Your task to perform on an android device: Open Yahoo.com Image 0: 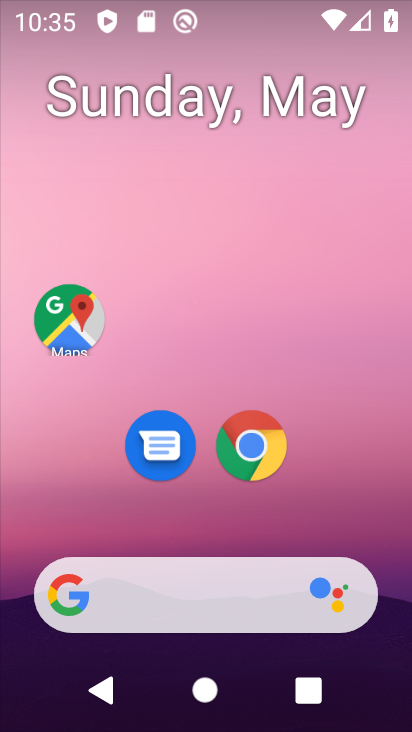
Step 0: click (277, 430)
Your task to perform on an android device: Open Yahoo.com Image 1: 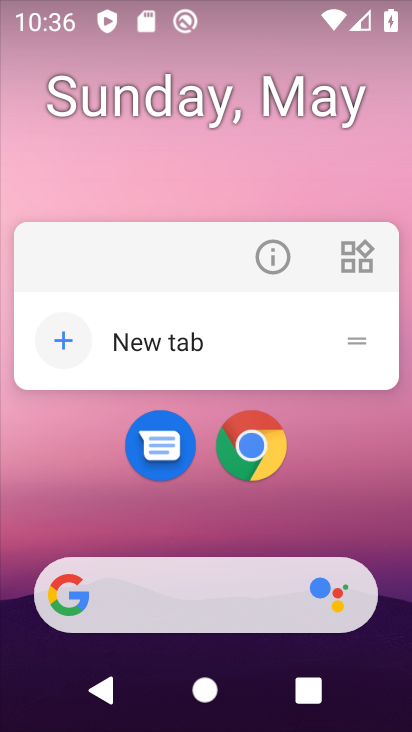
Step 1: click (229, 450)
Your task to perform on an android device: Open Yahoo.com Image 2: 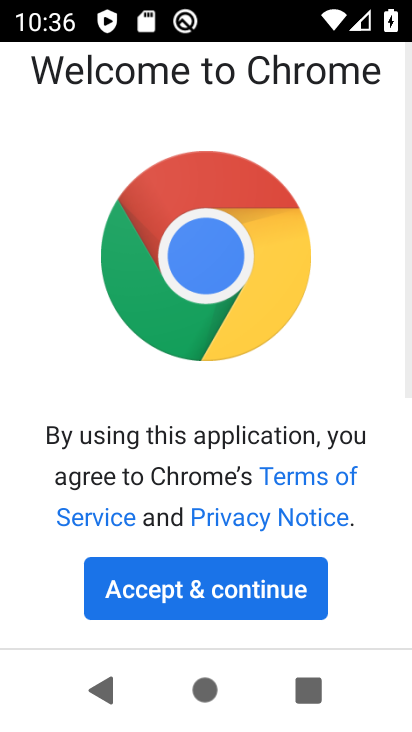
Step 2: click (209, 608)
Your task to perform on an android device: Open Yahoo.com Image 3: 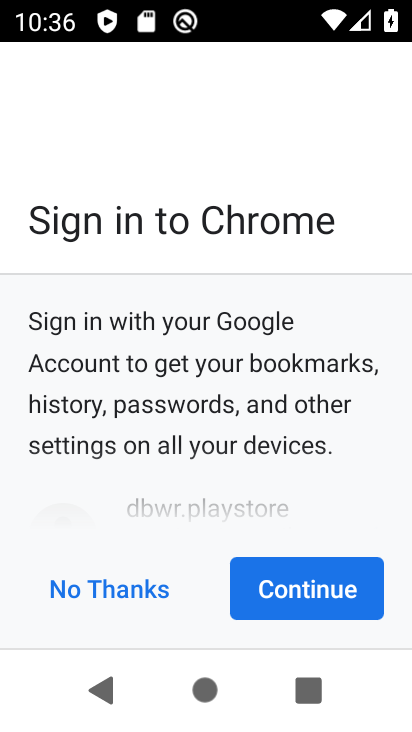
Step 3: click (304, 596)
Your task to perform on an android device: Open Yahoo.com Image 4: 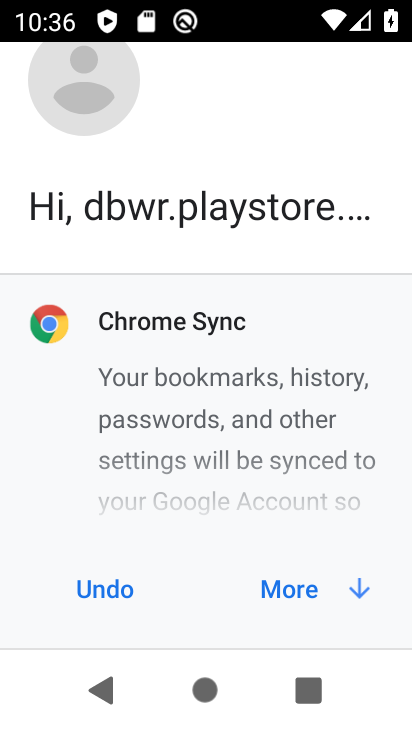
Step 4: click (309, 604)
Your task to perform on an android device: Open Yahoo.com Image 5: 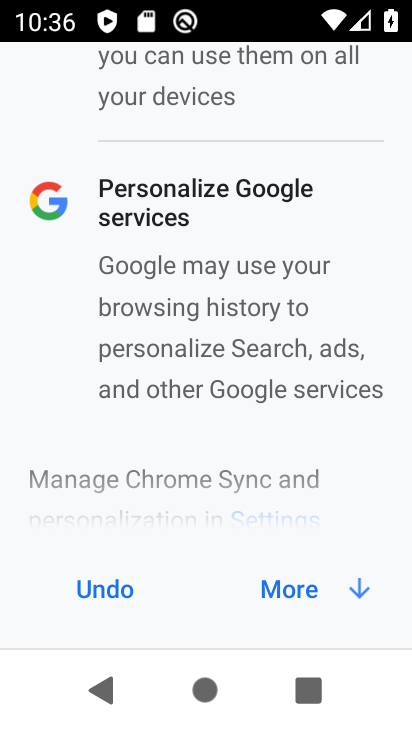
Step 5: click (317, 596)
Your task to perform on an android device: Open Yahoo.com Image 6: 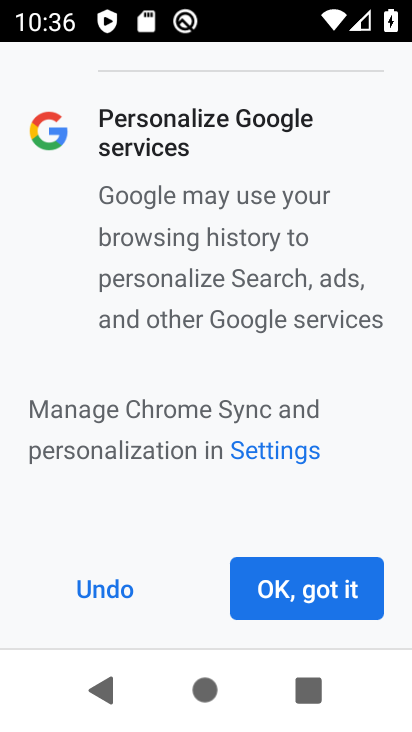
Step 6: click (288, 592)
Your task to perform on an android device: Open Yahoo.com Image 7: 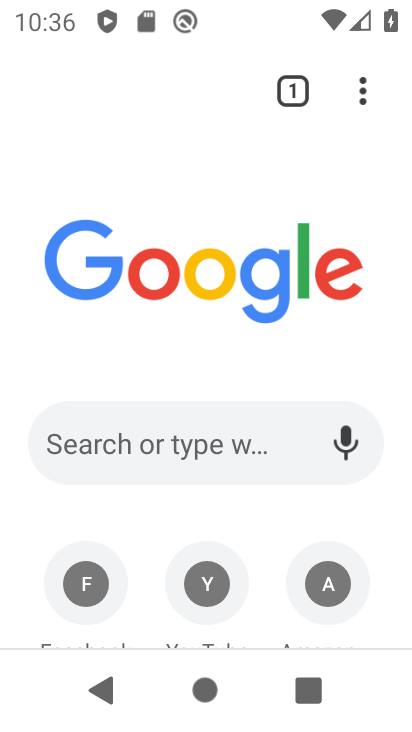
Step 7: drag from (146, 577) to (218, 201)
Your task to perform on an android device: Open Yahoo.com Image 8: 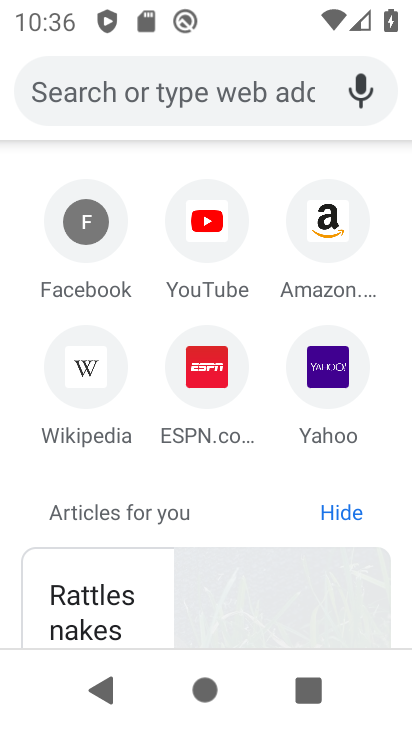
Step 8: click (343, 377)
Your task to perform on an android device: Open Yahoo.com Image 9: 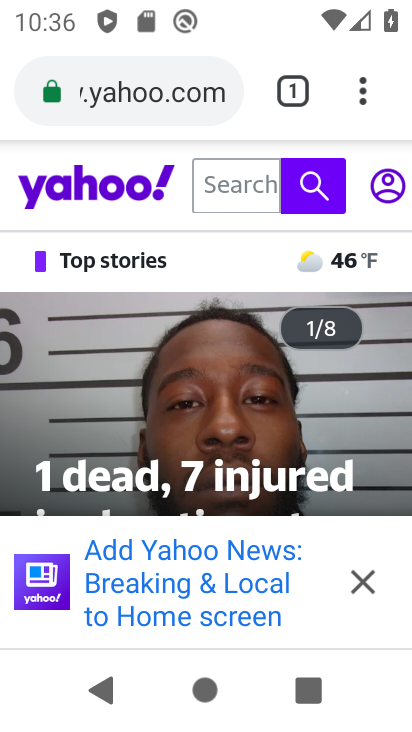
Step 9: task complete